Your task to perform on an android device: open wifi settings Image 0: 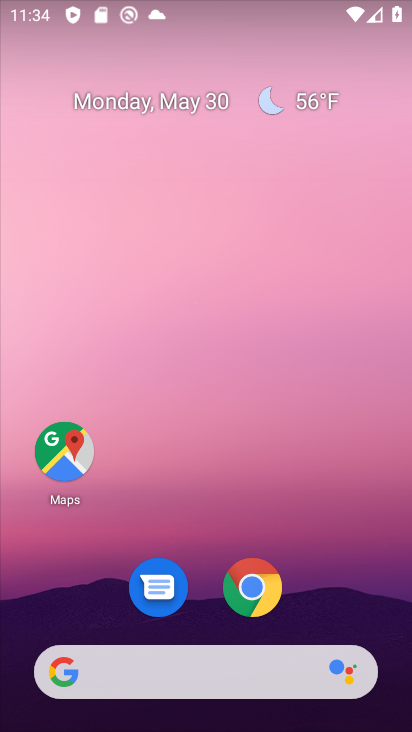
Step 0: drag from (331, 577) to (217, 130)
Your task to perform on an android device: open wifi settings Image 1: 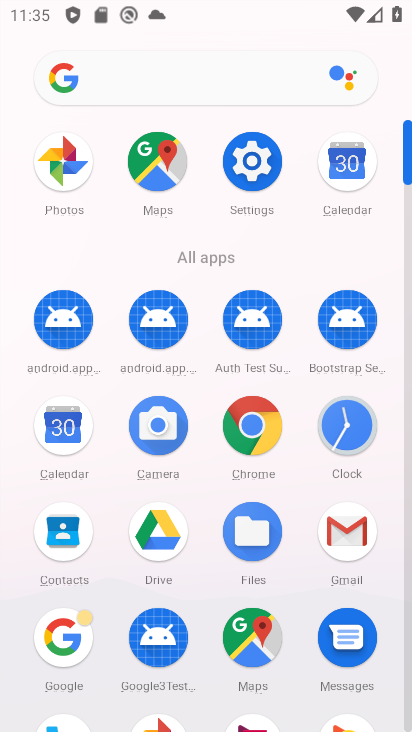
Step 1: click (245, 152)
Your task to perform on an android device: open wifi settings Image 2: 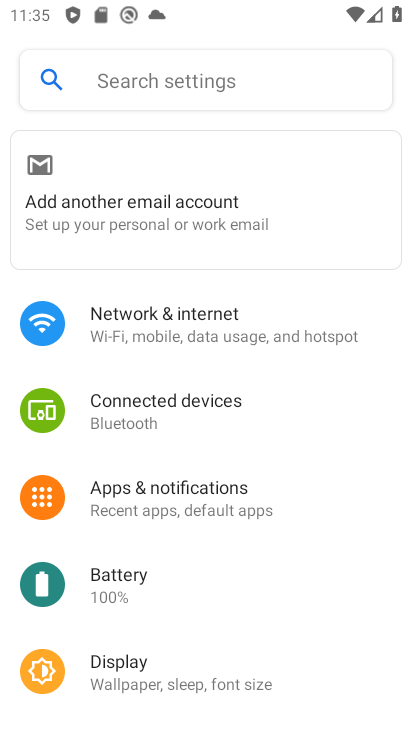
Step 2: click (197, 333)
Your task to perform on an android device: open wifi settings Image 3: 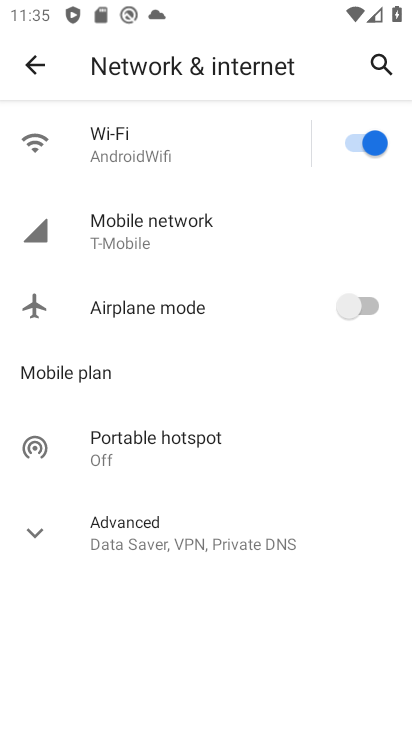
Step 3: click (147, 150)
Your task to perform on an android device: open wifi settings Image 4: 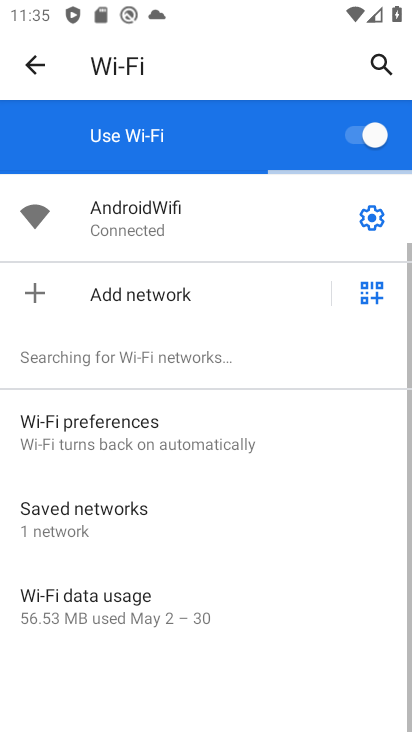
Step 4: task complete